Your task to perform on an android device: What's the weather? Image 0: 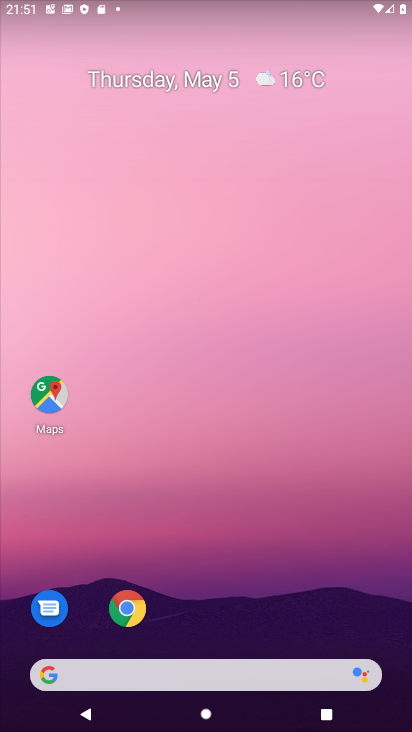
Step 0: click (277, 601)
Your task to perform on an android device: What's the weather? Image 1: 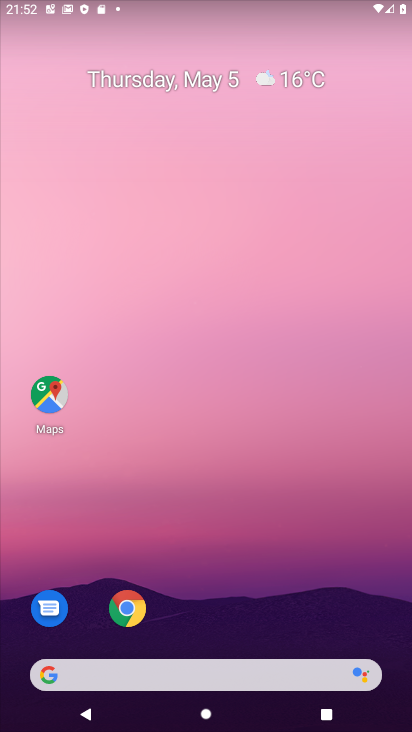
Step 1: drag from (272, 624) to (259, 85)
Your task to perform on an android device: What's the weather? Image 2: 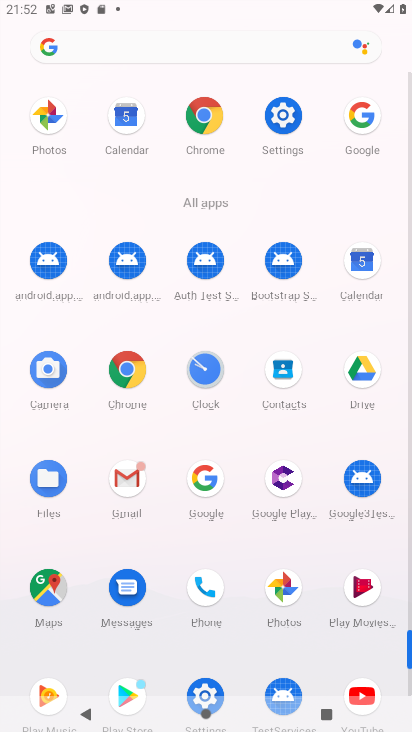
Step 2: click (199, 115)
Your task to perform on an android device: What's the weather? Image 3: 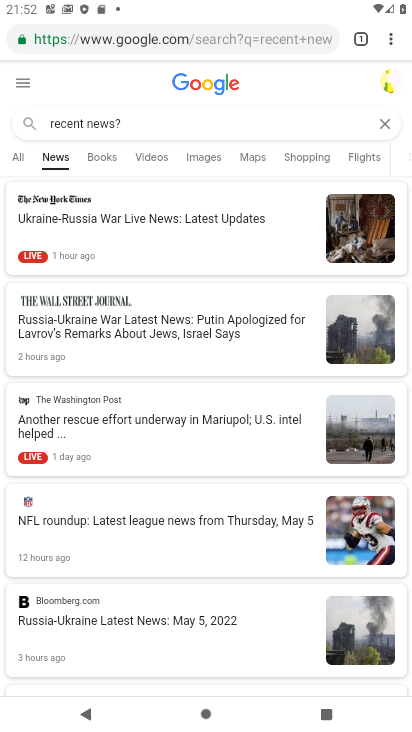
Step 3: click (290, 38)
Your task to perform on an android device: What's the weather? Image 4: 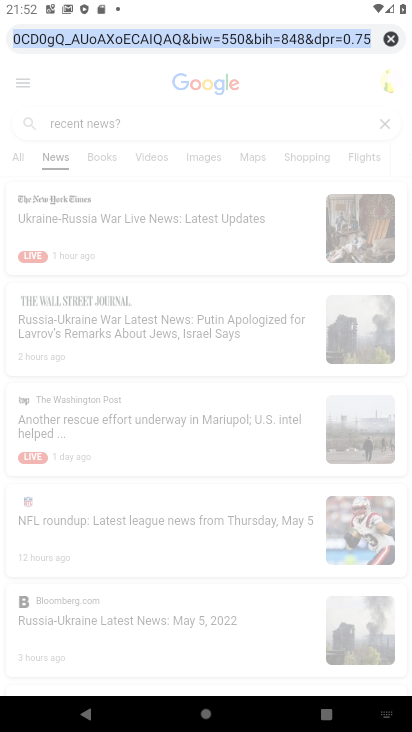
Step 4: click (385, 40)
Your task to perform on an android device: What's the weather? Image 5: 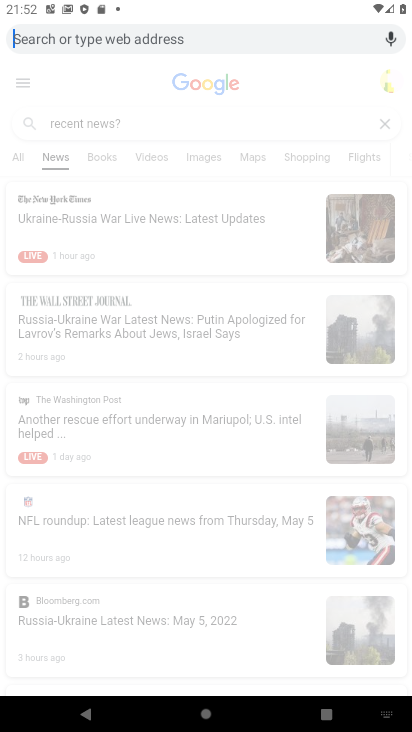
Step 5: type "weather?"
Your task to perform on an android device: What's the weather? Image 6: 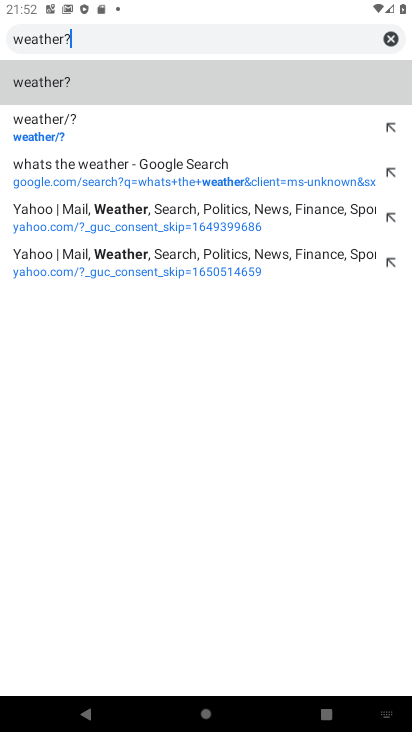
Step 6: click (153, 79)
Your task to perform on an android device: What's the weather? Image 7: 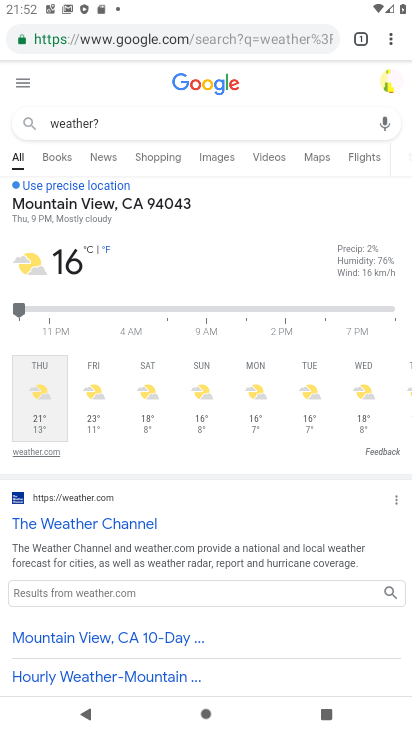
Step 7: task complete